Your task to perform on an android device: search for starred emails in the gmail app Image 0: 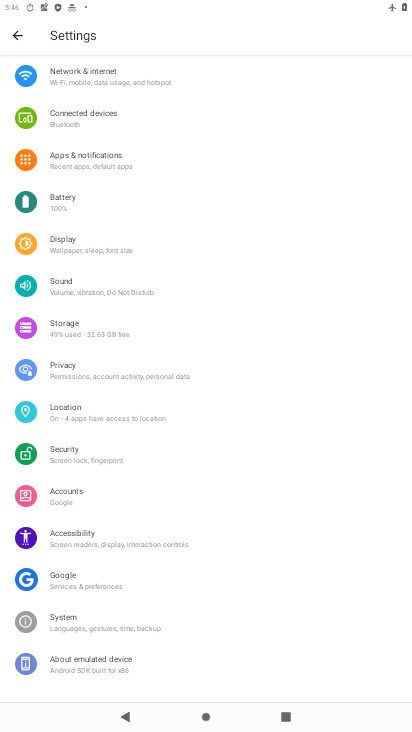
Step 0: press home button
Your task to perform on an android device: search for starred emails in the gmail app Image 1: 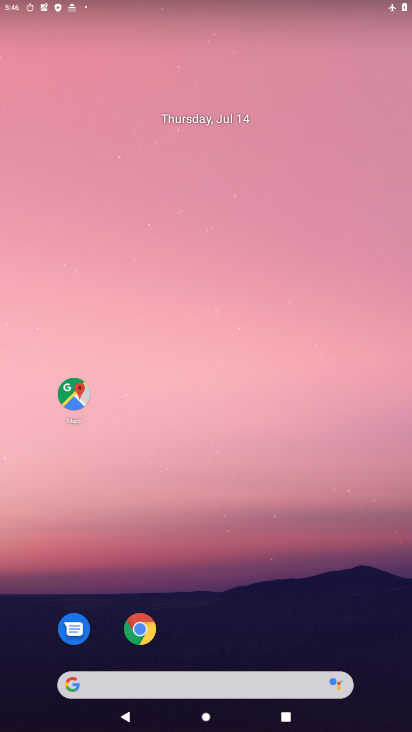
Step 1: drag from (329, 669) to (325, 10)
Your task to perform on an android device: search for starred emails in the gmail app Image 2: 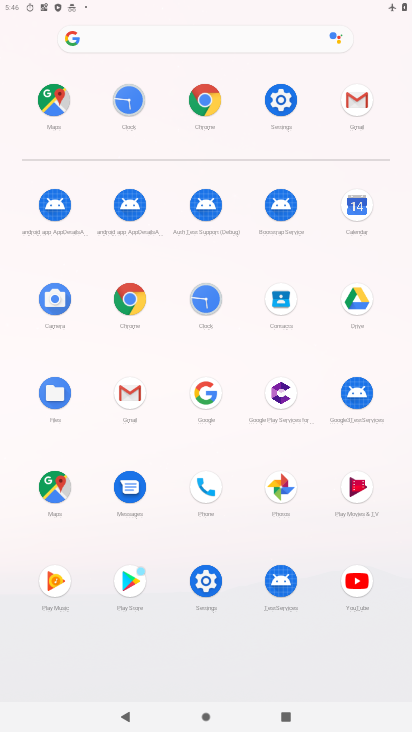
Step 2: click (133, 396)
Your task to perform on an android device: search for starred emails in the gmail app Image 3: 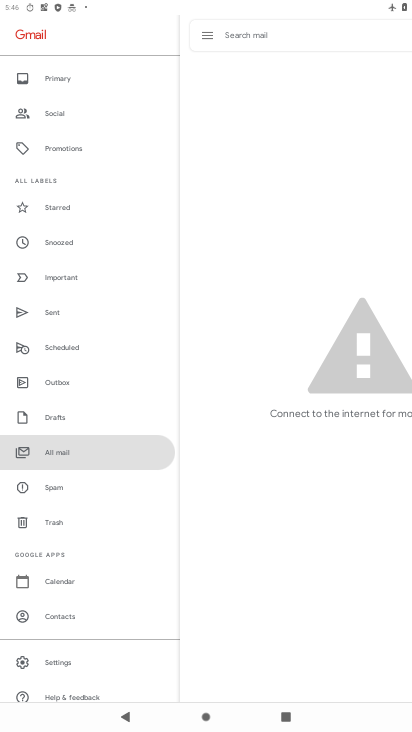
Step 3: click (66, 216)
Your task to perform on an android device: search for starred emails in the gmail app Image 4: 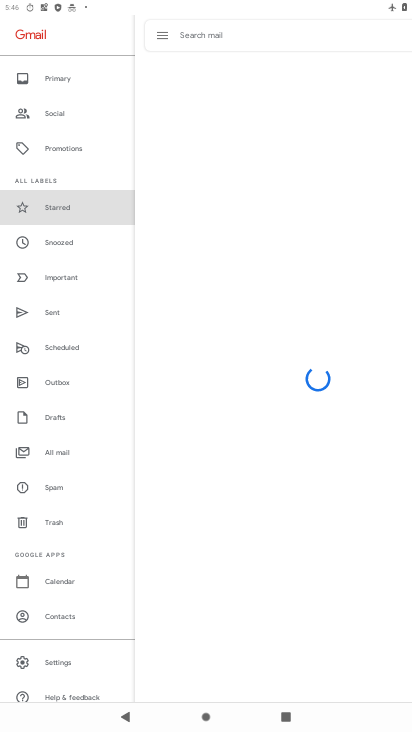
Step 4: task complete